Your task to perform on an android device: turn on the 12-hour format for clock Image 0: 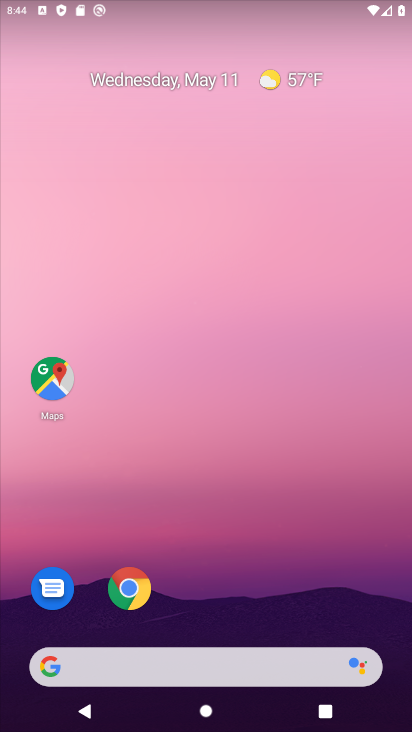
Step 0: drag from (256, 714) to (357, 13)
Your task to perform on an android device: turn on the 12-hour format for clock Image 1: 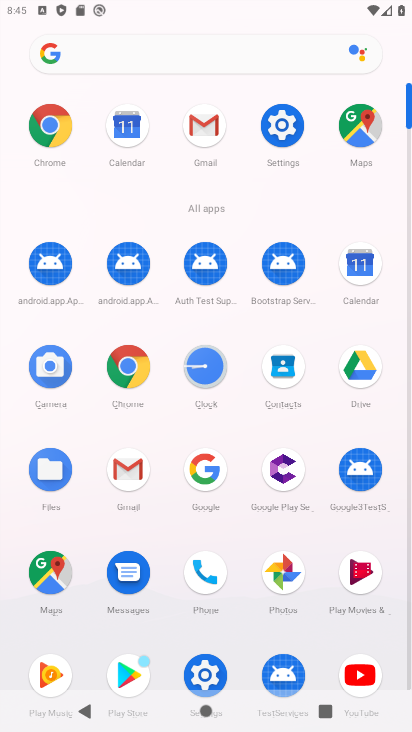
Step 1: click (205, 365)
Your task to perform on an android device: turn on the 12-hour format for clock Image 2: 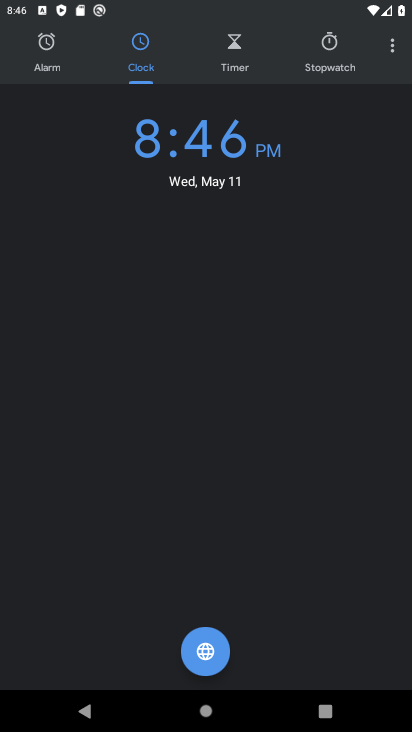
Step 2: click (386, 52)
Your task to perform on an android device: turn on the 12-hour format for clock Image 3: 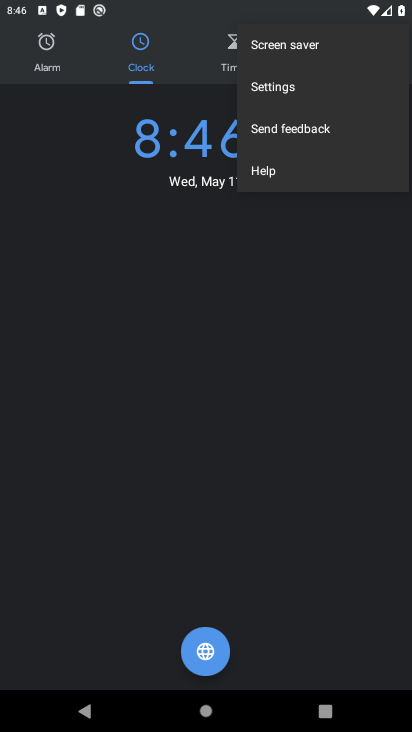
Step 3: click (327, 91)
Your task to perform on an android device: turn on the 12-hour format for clock Image 4: 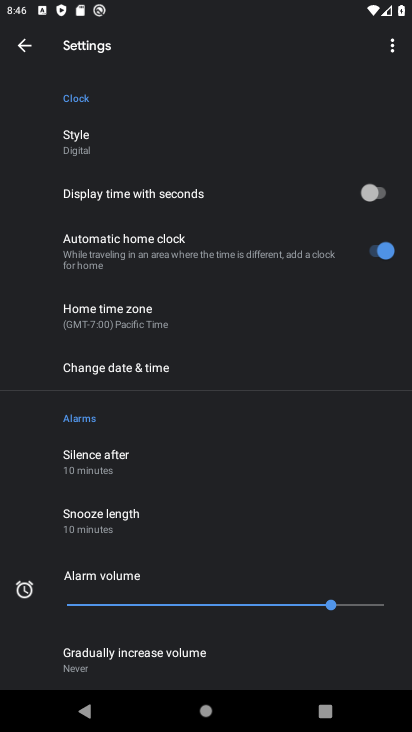
Step 4: click (134, 358)
Your task to perform on an android device: turn on the 12-hour format for clock Image 5: 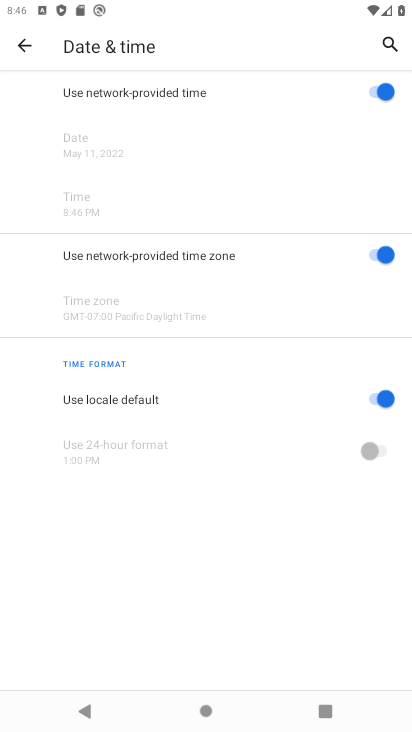
Step 5: task complete